Your task to perform on an android device: Toggle the flashlight Image 0: 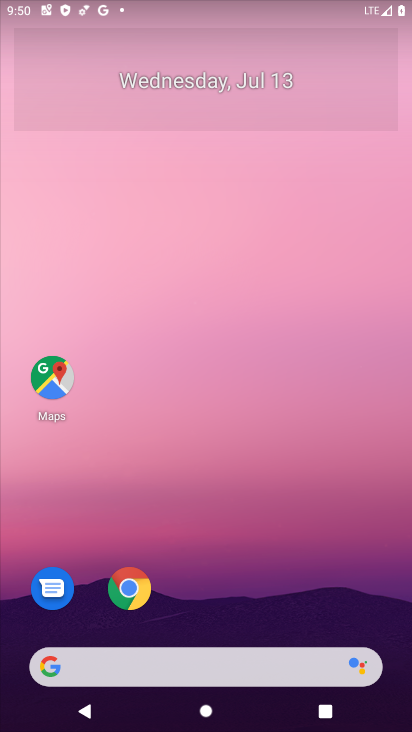
Step 0: drag from (239, 573) to (278, 104)
Your task to perform on an android device: Toggle the flashlight Image 1: 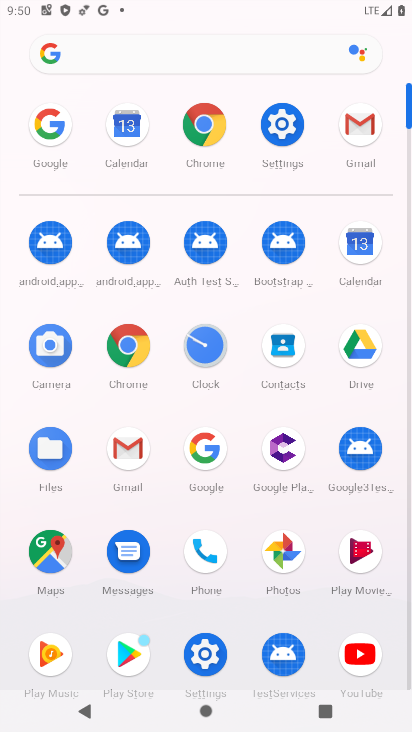
Step 1: click (288, 121)
Your task to perform on an android device: Toggle the flashlight Image 2: 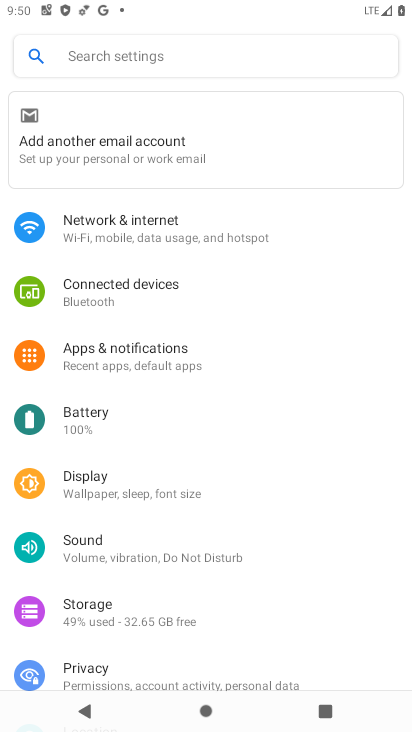
Step 2: click (171, 62)
Your task to perform on an android device: Toggle the flashlight Image 3: 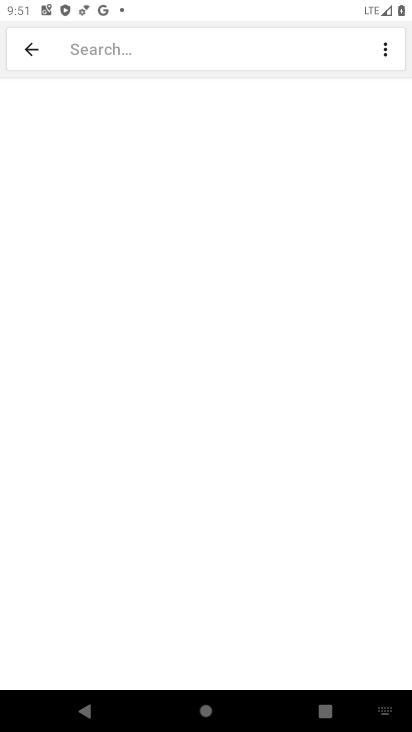
Step 3: type "flashlight"
Your task to perform on an android device: Toggle the flashlight Image 4: 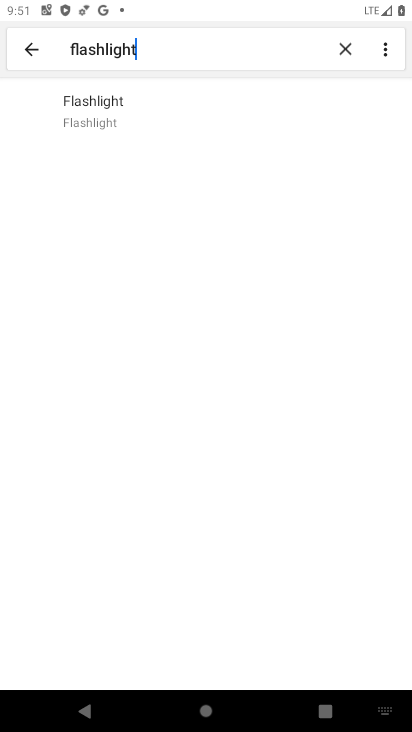
Step 4: task complete